Your task to perform on an android device: set an alarm Image 0: 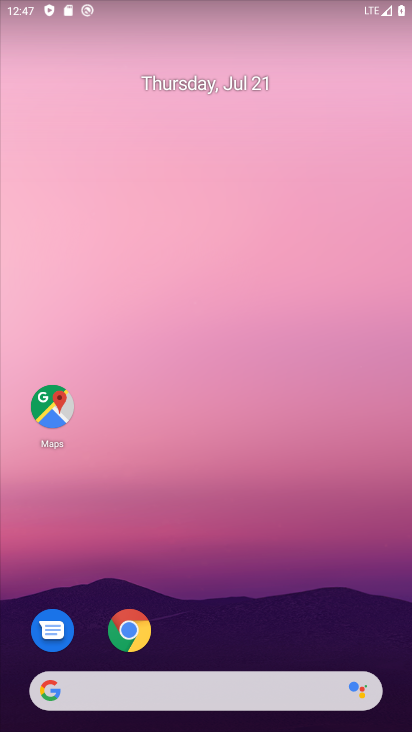
Step 0: drag from (204, 618) to (132, 11)
Your task to perform on an android device: set an alarm Image 1: 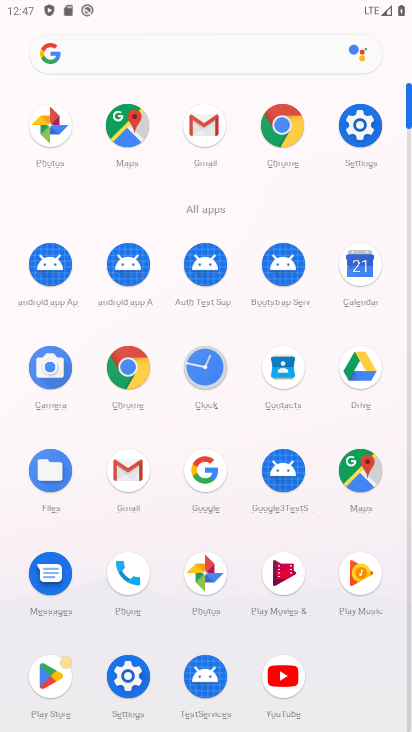
Step 1: click (191, 375)
Your task to perform on an android device: set an alarm Image 2: 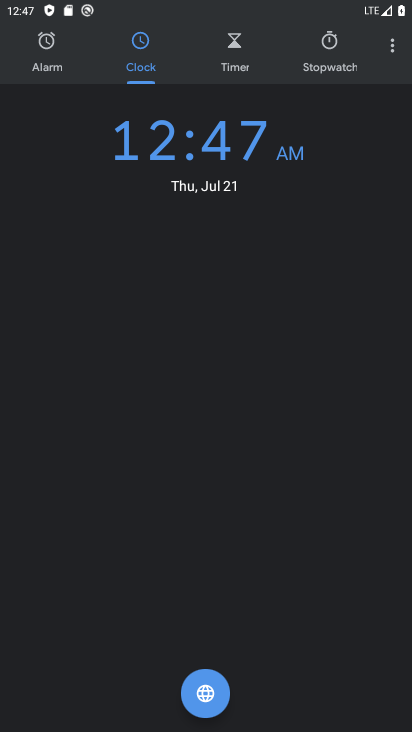
Step 2: click (57, 55)
Your task to perform on an android device: set an alarm Image 3: 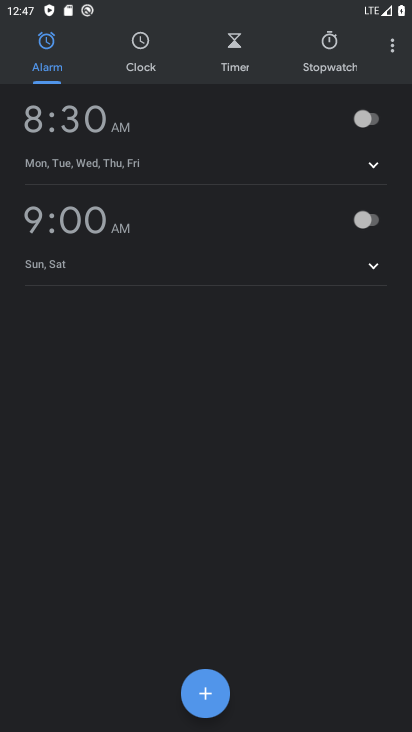
Step 3: click (367, 226)
Your task to perform on an android device: set an alarm Image 4: 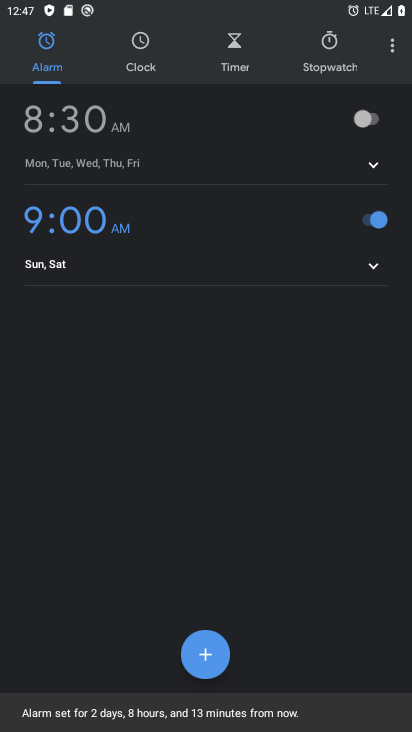
Step 4: task complete